Your task to perform on an android device: Search for Italian restaurants on Maps Image 0: 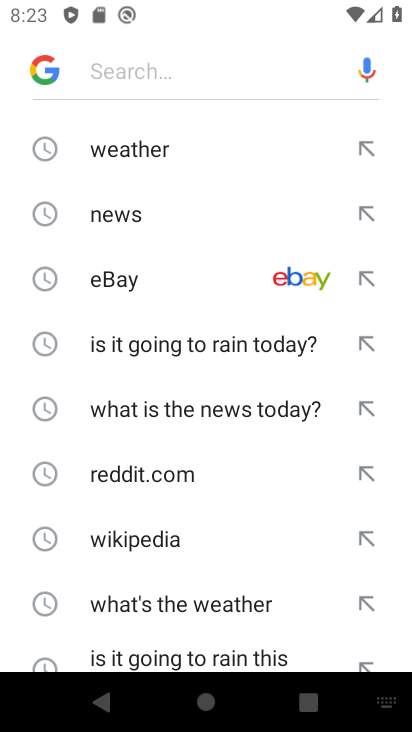
Step 0: press home button
Your task to perform on an android device: Search for Italian restaurants on Maps Image 1: 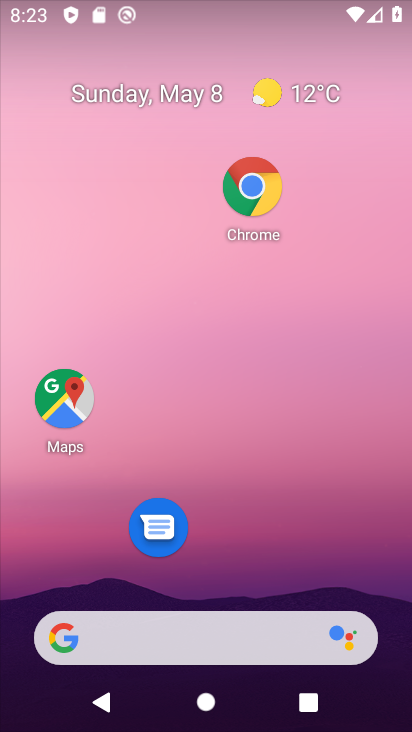
Step 1: drag from (277, 556) to (329, 230)
Your task to perform on an android device: Search for Italian restaurants on Maps Image 2: 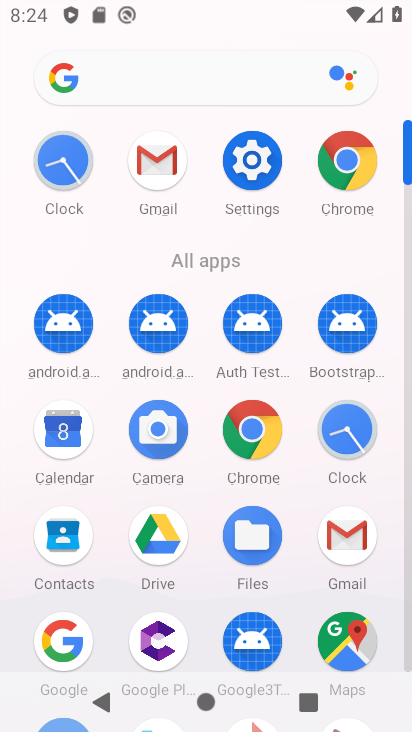
Step 2: drag from (280, 573) to (353, 214)
Your task to perform on an android device: Search for Italian restaurants on Maps Image 3: 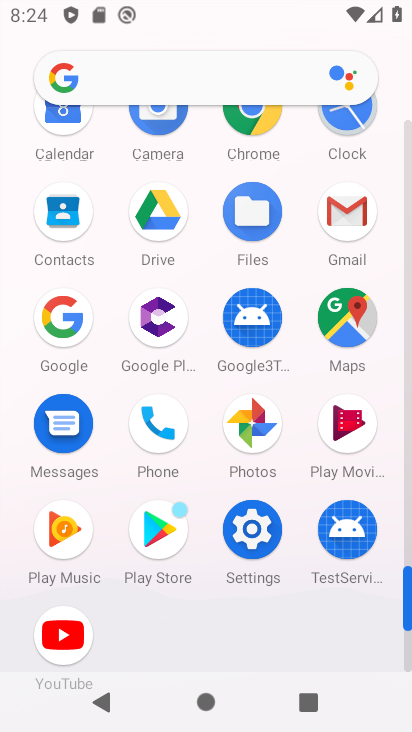
Step 3: click (328, 311)
Your task to perform on an android device: Search for Italian restaurants on Maps Image 4: 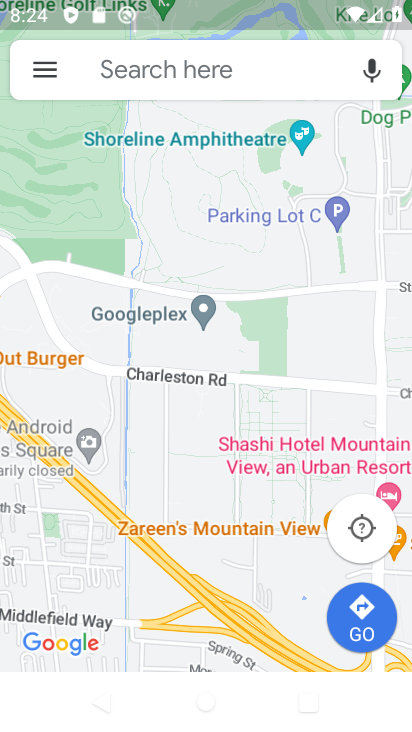
Step 4: click (178, 54)
Your task to perform on an android device: Search for Italian restaurants on Maps Image 5: 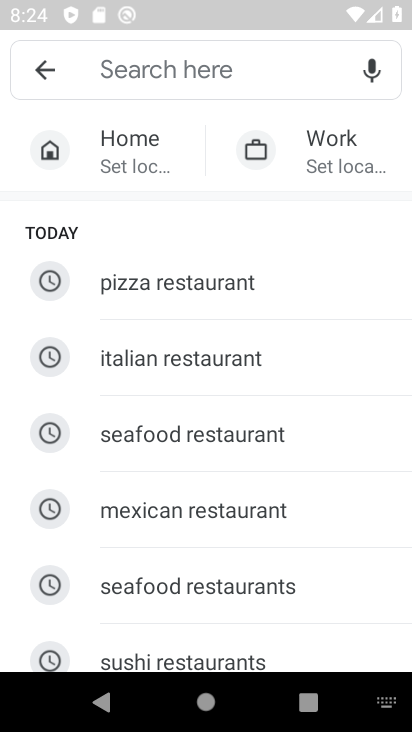
Step 5: type " Italian restaurants"
Your task to perform on an android device: Search for Italian restaurants on Maps Image 6: 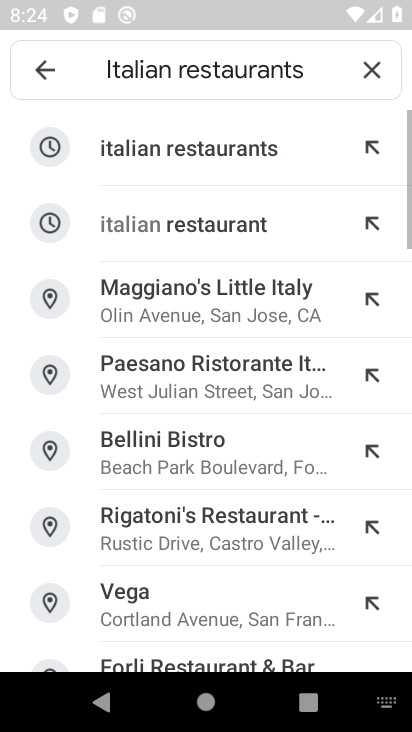
Step 6: click (196, 157)
Your task to perform on an android device: Search for Italian restaurants on Maps Image 7: 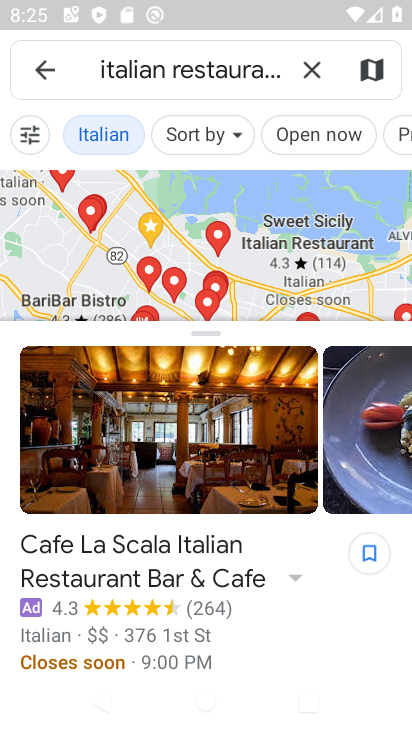
Step 7: task complete